Your task to perform on an android device: Toggle the flashlight Image 0: 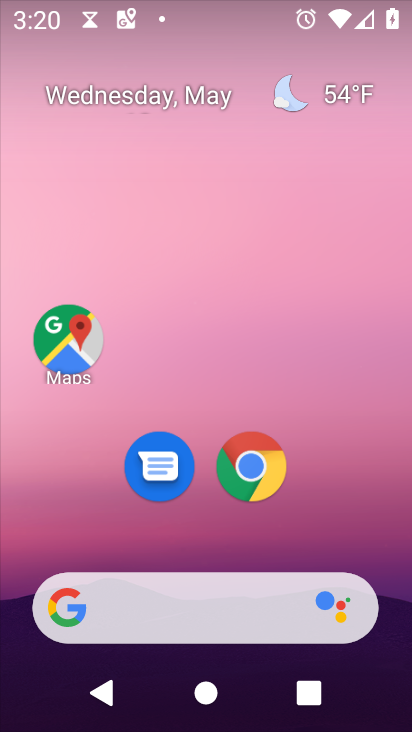
Step 0: drag from (358, 18) to (331, 383)
Your task to perform on an android device: Toggle the flashlight Image 1: 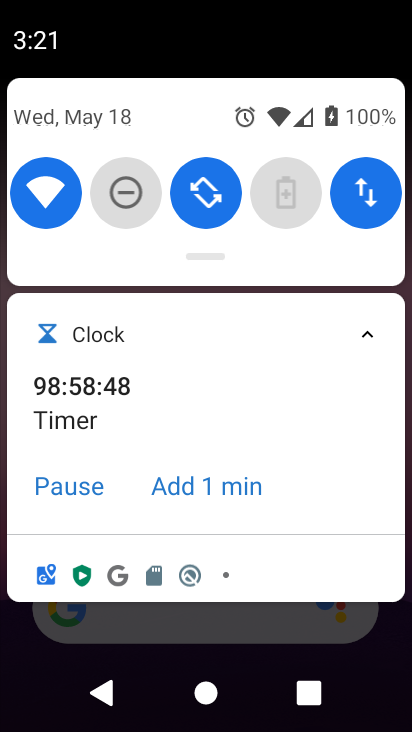
Step 1: drag from (257, 231) to (239, 580)
Your task to perform on an android device: Toggle the flashlight Image 2: 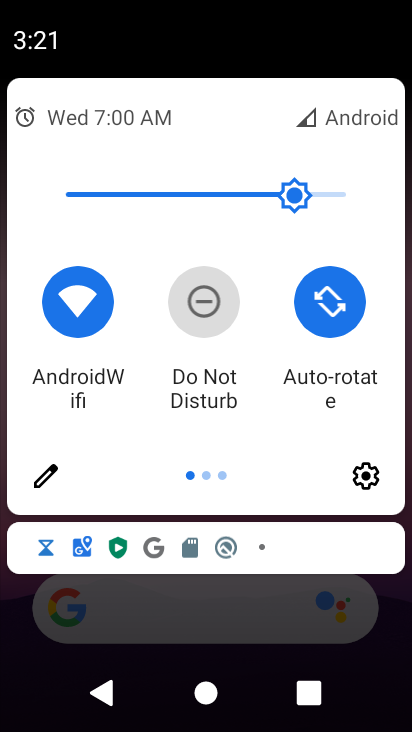
Step 2: click (40, 487)
Your task to perform on an android device: Toggle the flashlight Image 3: 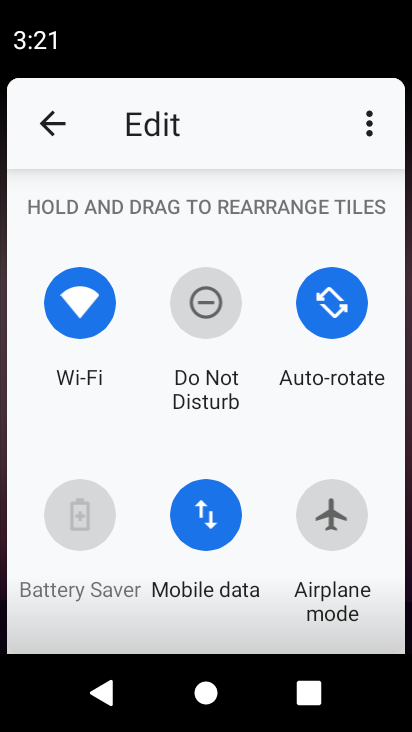
Step 3: task complete